Your task to perform on an android device: toggle javascript in the chrome app Image 0: 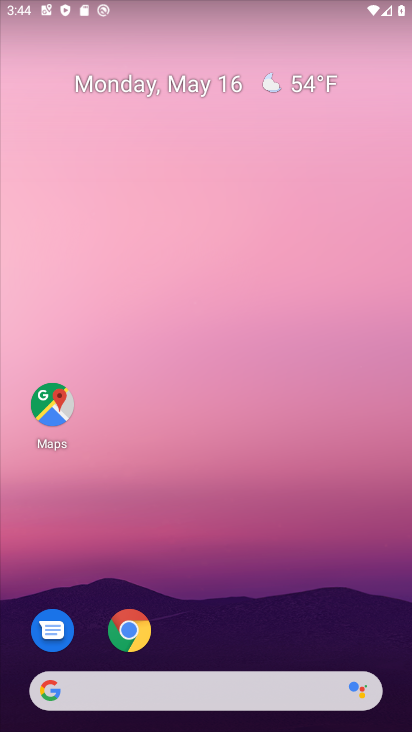
Step 0: drag from (237, 643) to (215, 161)
Your task to perform on an android device: toggle javascript in the chrome app Image 1: 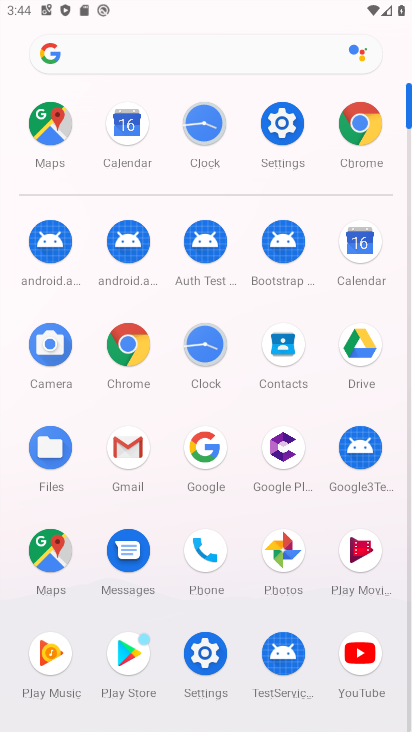
Step 1: click (365, 135)
Your task to perform on an android device: toggle javascript in the chrome app Image 2: 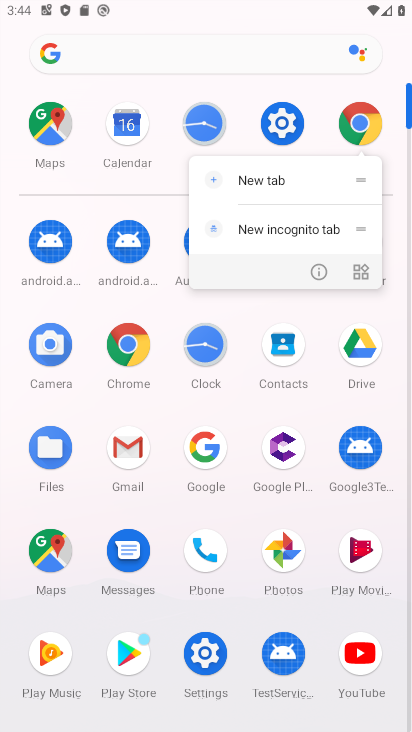
Step 2: click (365, 135)
Your task to perform on an android device: toggle javascript in the chrome app Image 3: 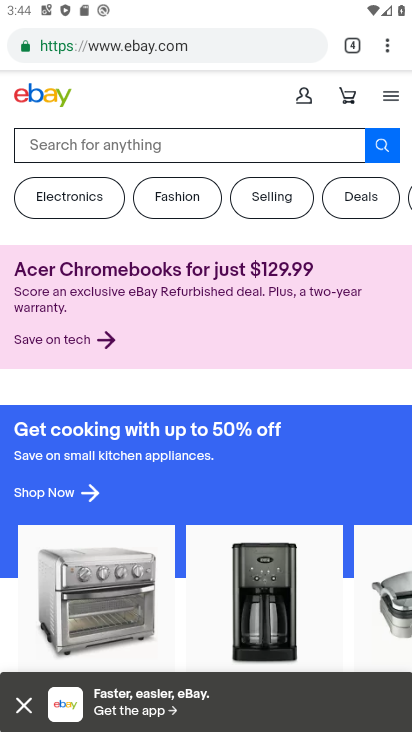
Step 3: click (381, 47)
Your task to perform on an android device: toggle javascript in the chrome app Image 4: 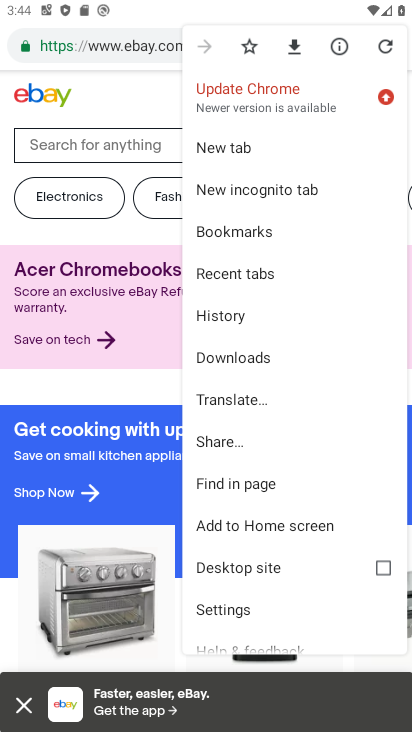
Step 4: click (313, 610)
Your task to perform on an android device: toggle javascript in the chrome app Image 5: 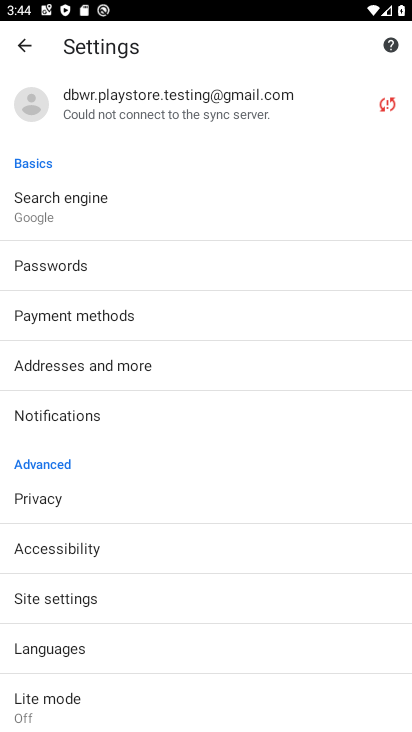
Step 5: click (313, 610)
Your task to perform on an android device: toggle javascript in the chrome app Image 6: 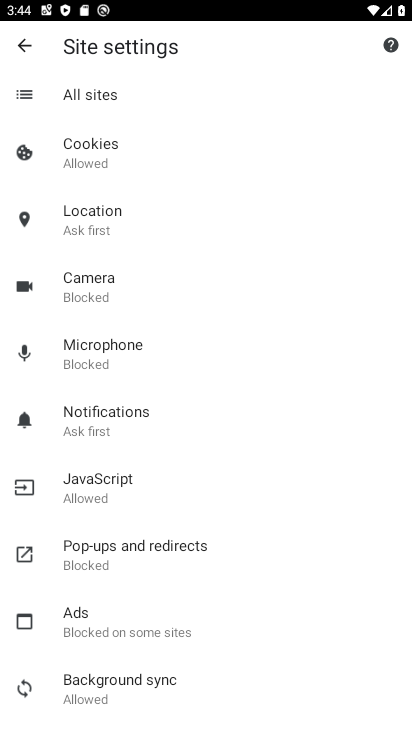
Step 6: click (247, 505)
Your task to perform on an android device: toggle javascript in the chrome app Image 7: 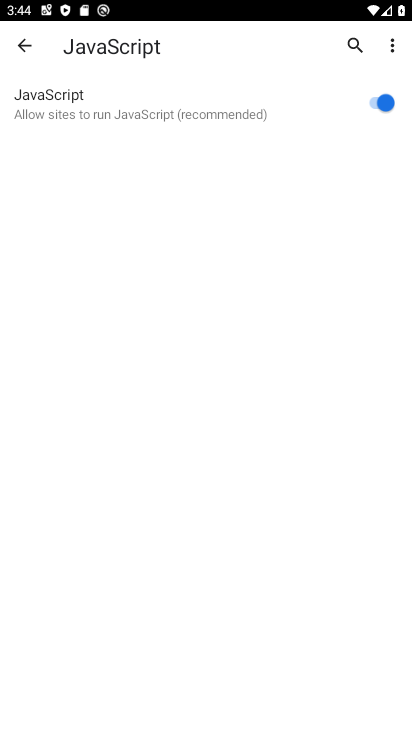
Step 7: click (382, 108)
Your task to perform on an android device: toggle javascript in the chrome app Image 8: 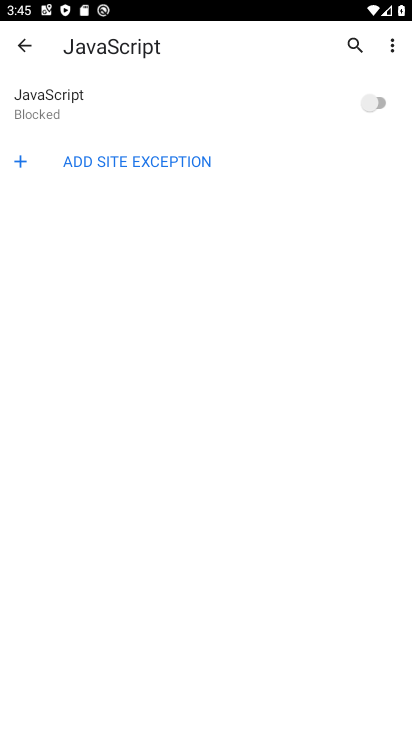
Step 8: task complete